Your task to perform on an android device: What's the news in Colombia? Image 0: 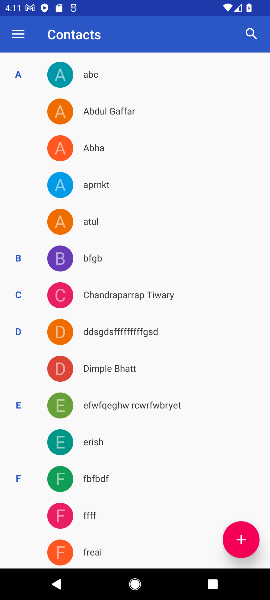
Step 0: press home button
Your task to perform on an android device: What's the news in Colombia? Image 1: 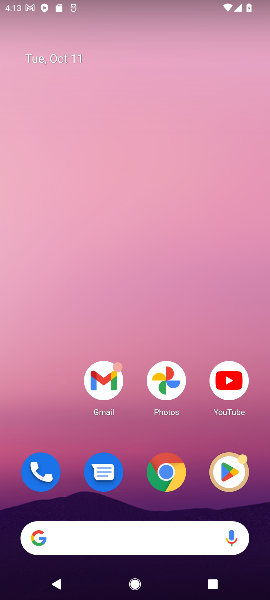
Step 1: type "What's the news in Colombia?"
Your task to perform on an android device: What's the news in Colombia? Image 2: 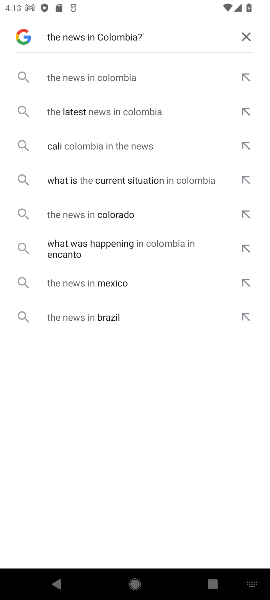
Step 2: click (96, 542)
Your task to perform on an android device: What's the news in Colombia? Image 3: 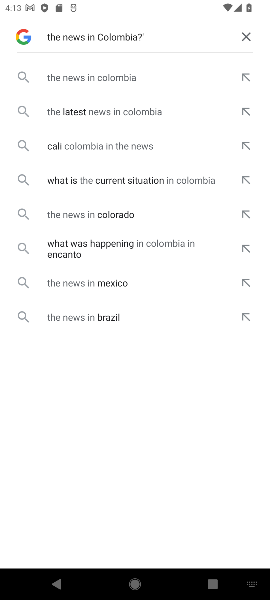
Step 3: click (243, 30)
Your task to perform on an android device: What's the news in Colombia? Image 4: 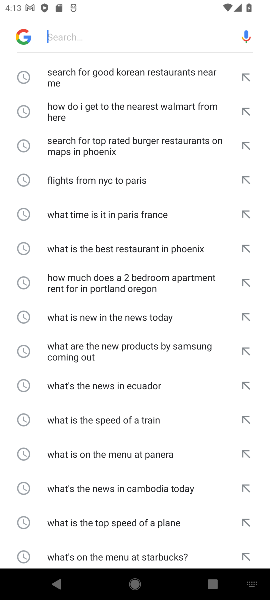
Step 4: type "What's the news in Colombia?"
Your task to perform on an android device: What's the news in Colombia? Image 5: 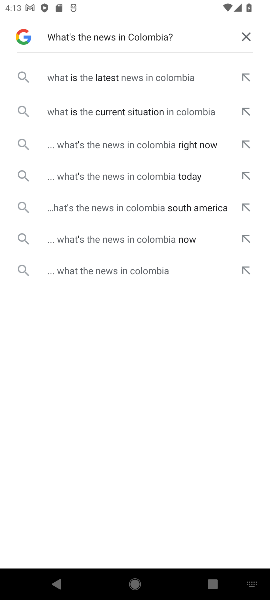
Step 5: click (182, 72)
Your task to perform on an android device: What's the news in Colombia? Image 6: 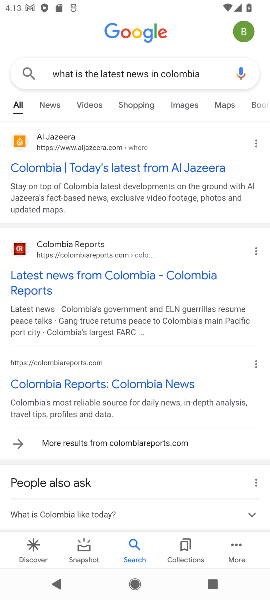
Step 6: click (54, 104)
Your task to perform on an android device: What's the news in Colombia? Image 7: 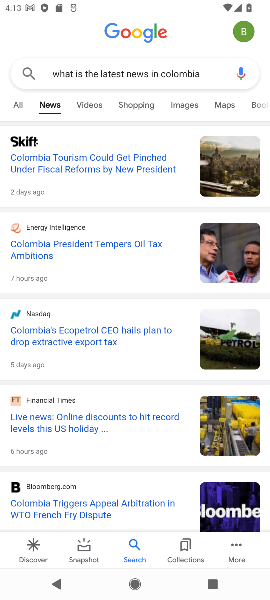
Step 7: task complete